Your task to perform on an android device: What's the weather? Image 0: 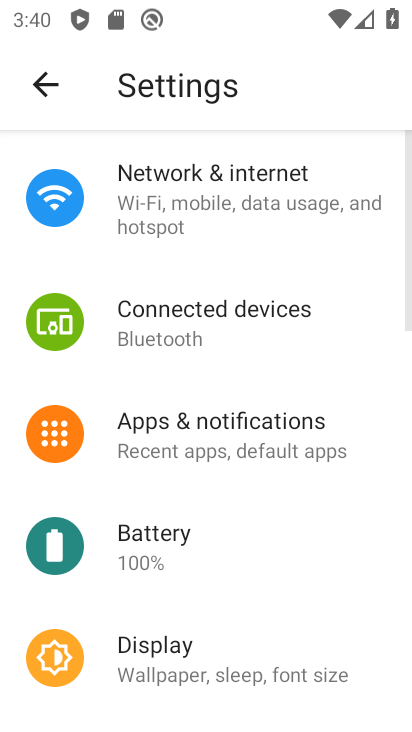
Step 0: press home button
Your task to perform on an android device: What's the weather? Image 1: 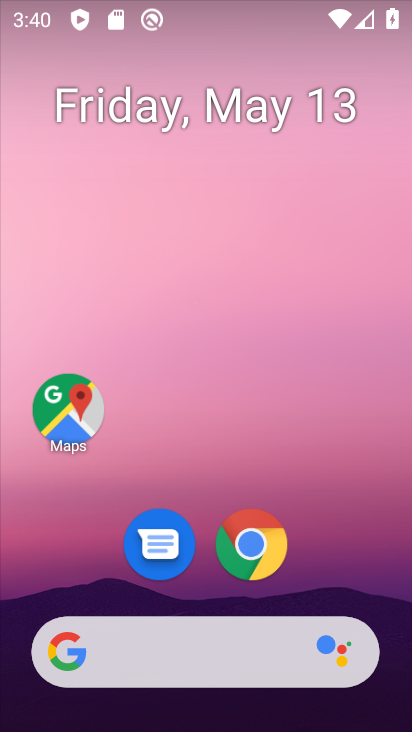
Step 1: drag from (68, 259) to (347, 161)
Your task to perform on an android device: What's the weather? Image 2: 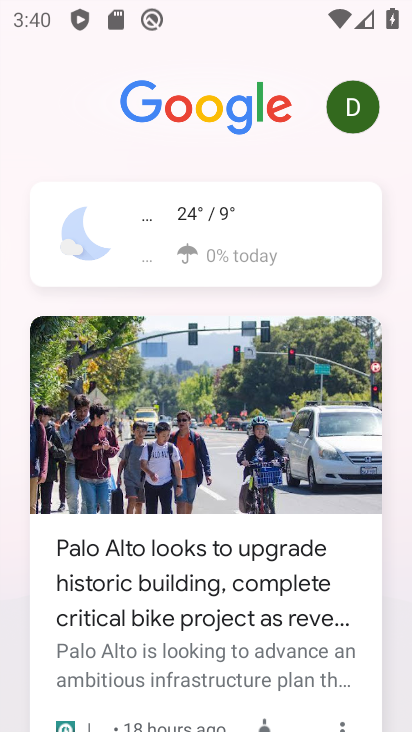
Step 2: click (238, 275)
Your task to perform on an android device: What's the weather? Image 3: 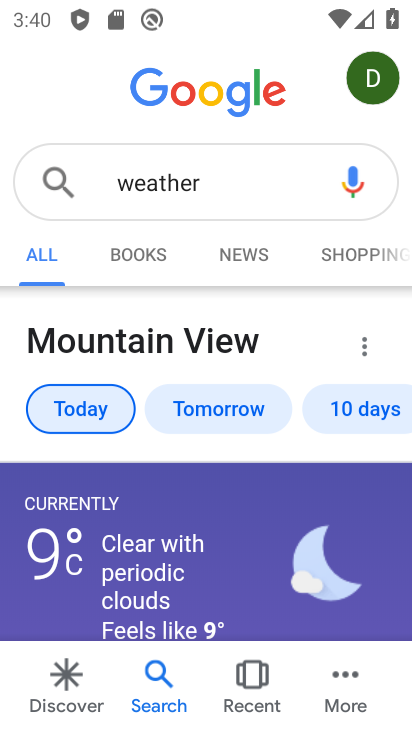
Step 3: task complete